Your task to perform on an android device: Show me recent news Image 0: 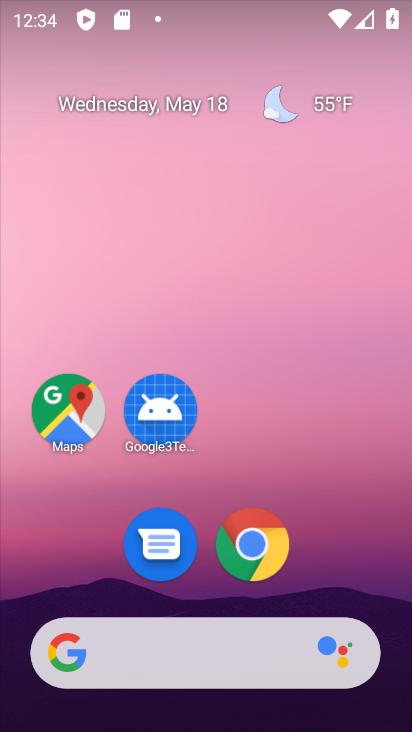
Step 0: click (169, 663)
Your task to perform on an android device: Show me recent news Image 1: 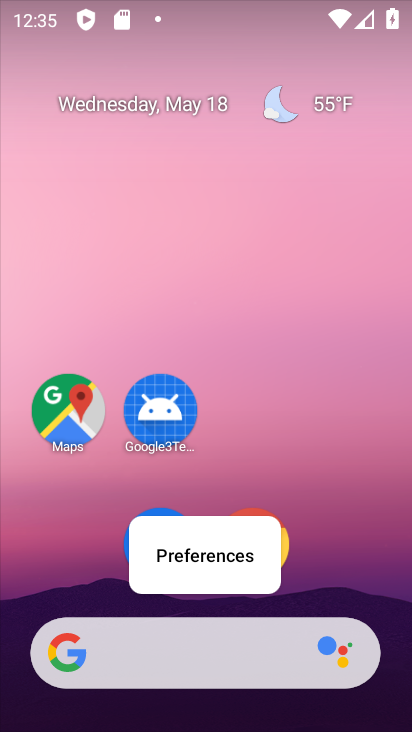
Step 1: click (171, 666)
Your task to perform on an android device: Show me recent news Image 2: 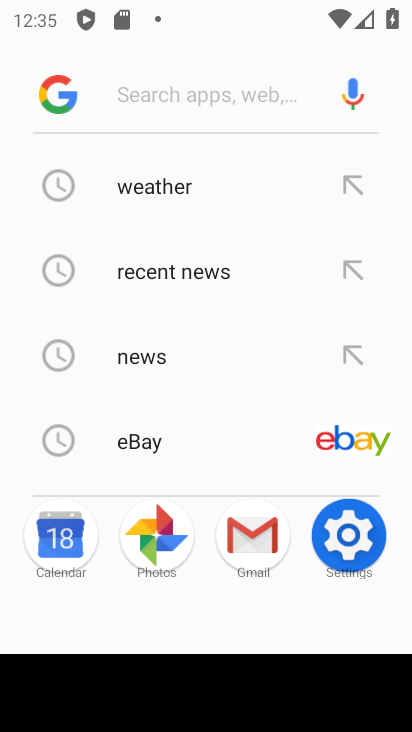
Step 2: click (230, 282)
Your task to perform on an android device: Show me recent news Image 3: 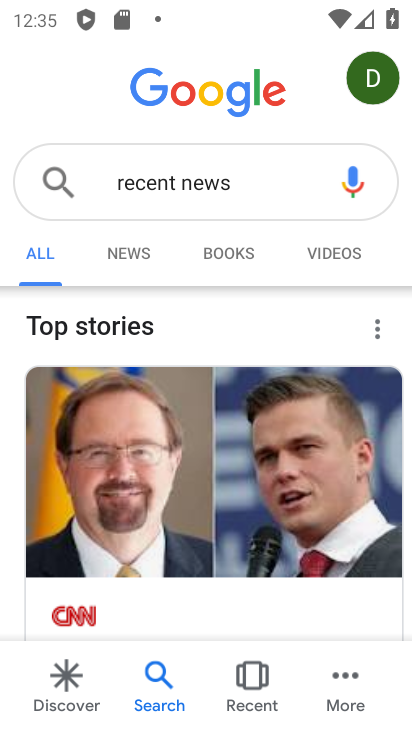
Step 3: task complete